Your task to perform on an android device: Is it going to rain this weekend? Image 0: 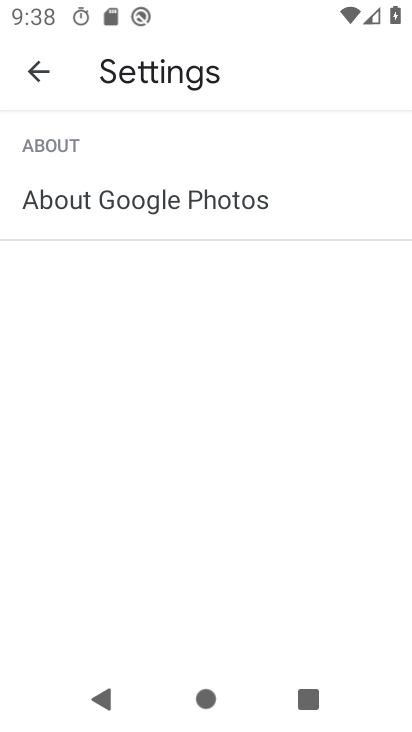
Step 0: press home button
Your task to perform on an android device: Is it going to rain this weekend? Image 1: 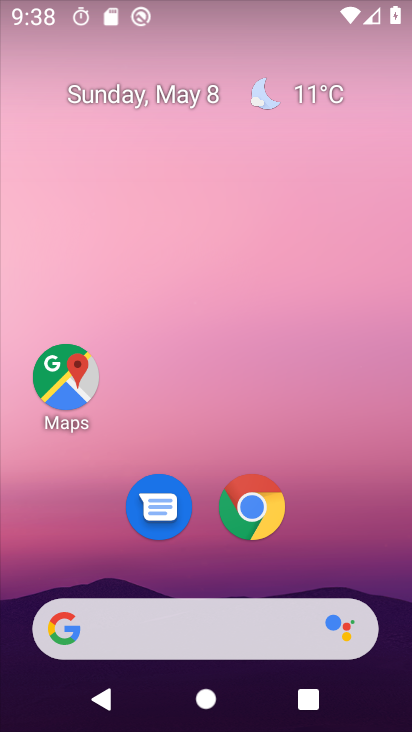
Step 1: drag from (350, 533) to (308, 157)
Your task to perform on an android device: Is it going to rain this weekend? Image 2: 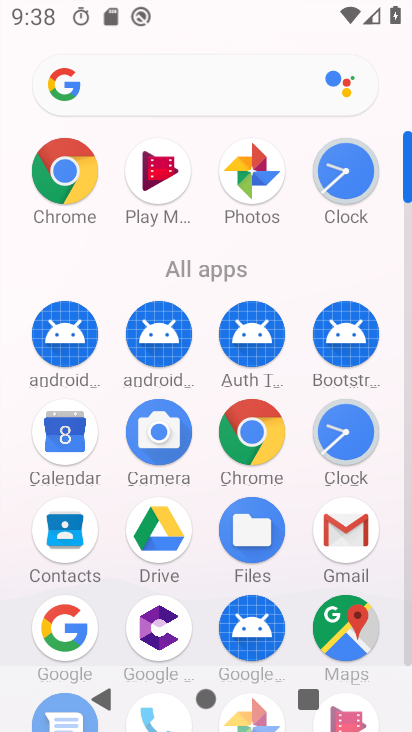
Step 2: press home button
Your task to perform on an android device: Is it going to rain this weekend? Image 3: 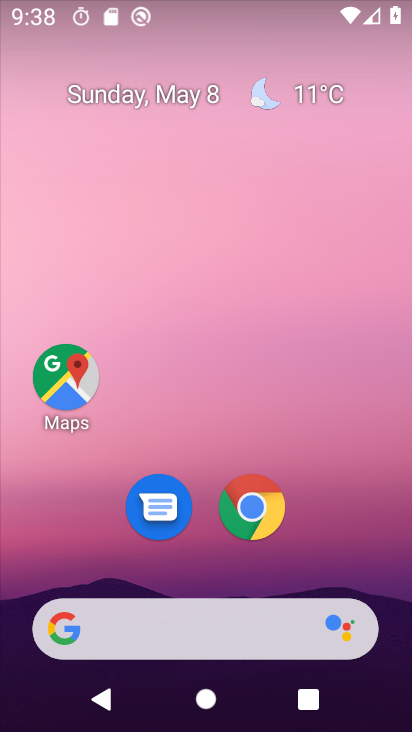
Step 3: click (323, 92)
Your task to perform on an android device: Is it going to rain this weekend? Image 4: 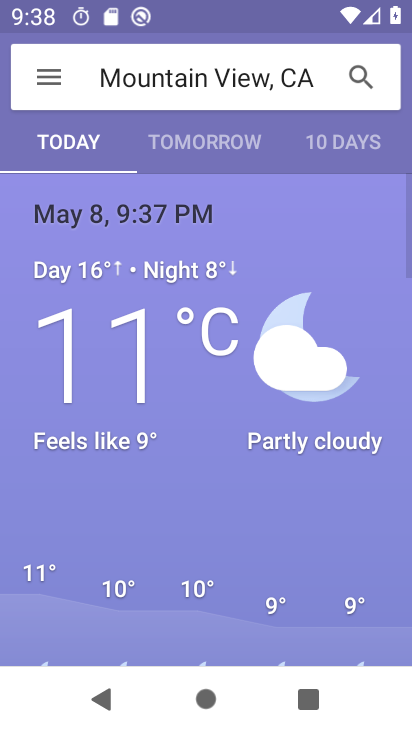
Step 4: click (370, 151)
Your task to perform on an android device: Is it going to rain this weekend? Image 5: 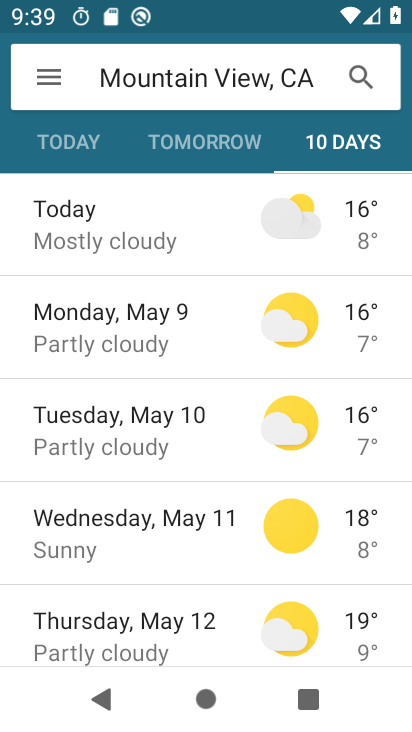
Step 5: task complete